Your task to perform on an android device: What's the weather? Image 0: 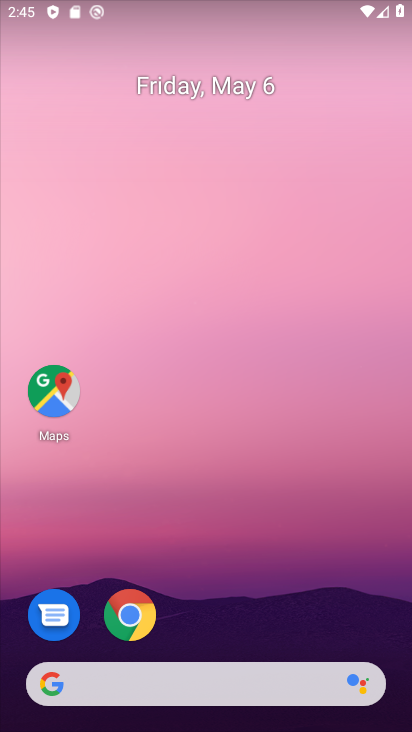
Step 0: click (177, 671)
Your task to perform on an android device: What's the weather? Image 1: 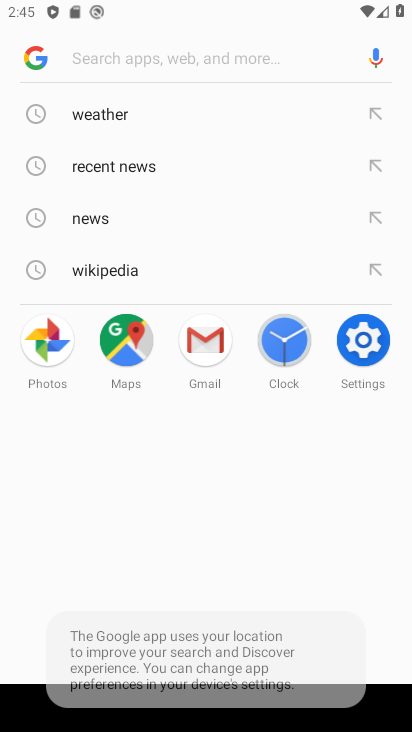
Step 1: click (138, 115)
Your task to perform on an android device: What's the weather? Image 2: 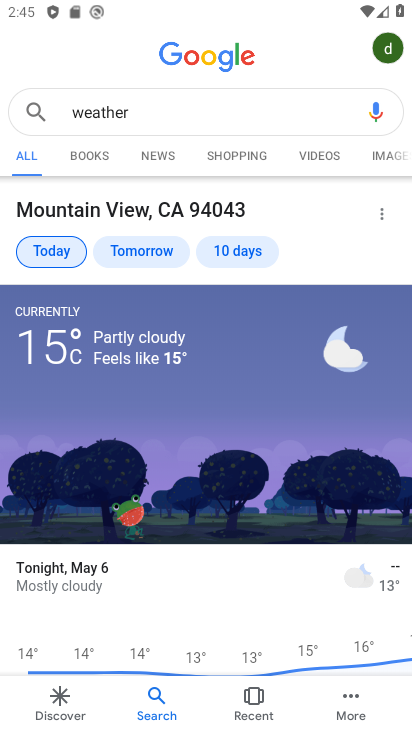
Step 2: task complete